Your task to perform on an android device: Open ESPN.com Image 0: 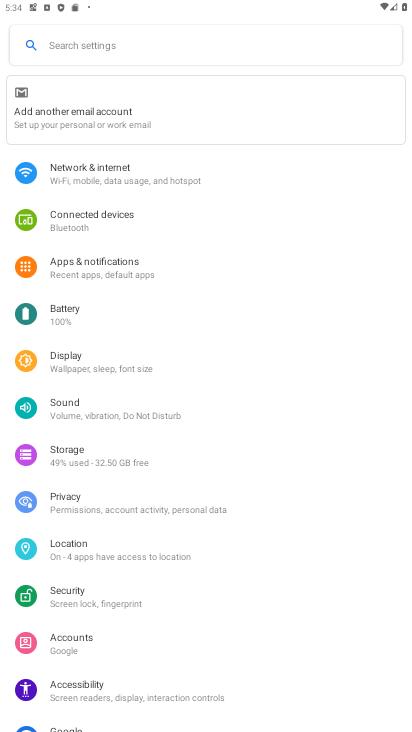
Step 0: press home button
Your task to perform on an android device: Open ESPN.com Image 1: 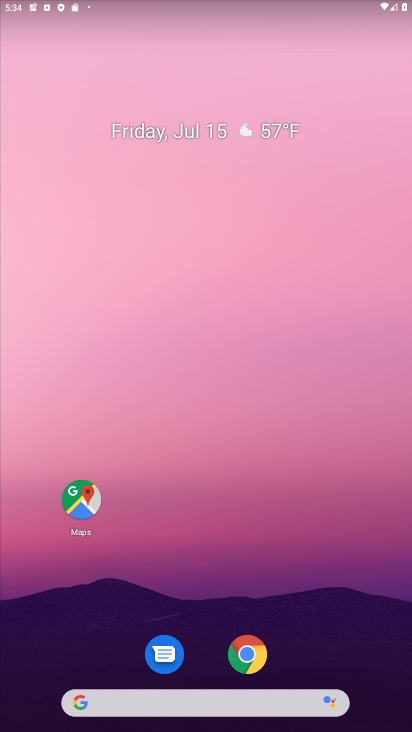
Step 1: click (250, 657)
Your task to perform on an android device: Open ESPN.com Image 2: 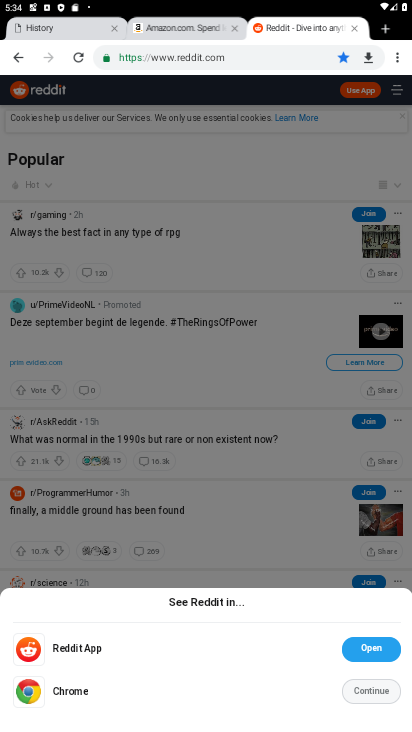
Step 2: click (386, 26)
Your task to perform on an android device: Open ESPN.com Image 3: 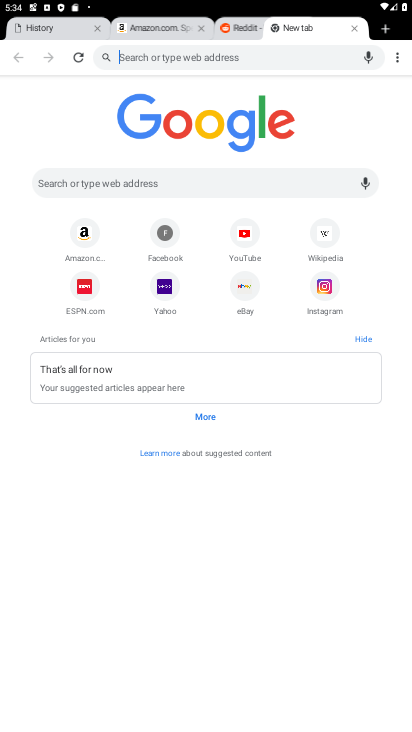
Step 3: type "espn"
Your task to perform on an android device: Open ESPN.com Image 4: 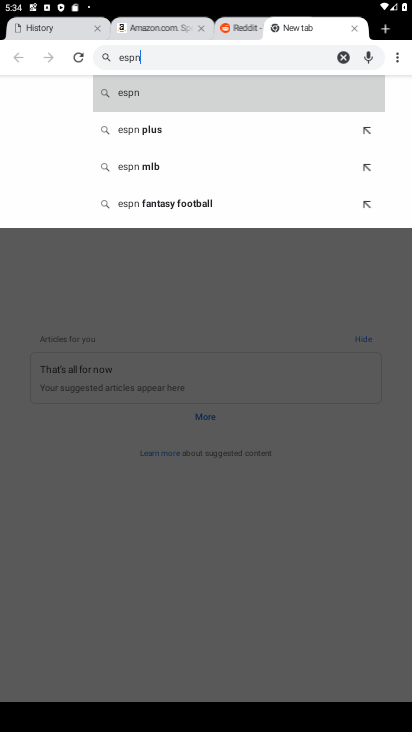
Step 4: click (219, 87)
Your task to perform on an android device: Open ESPN.com Image 5: 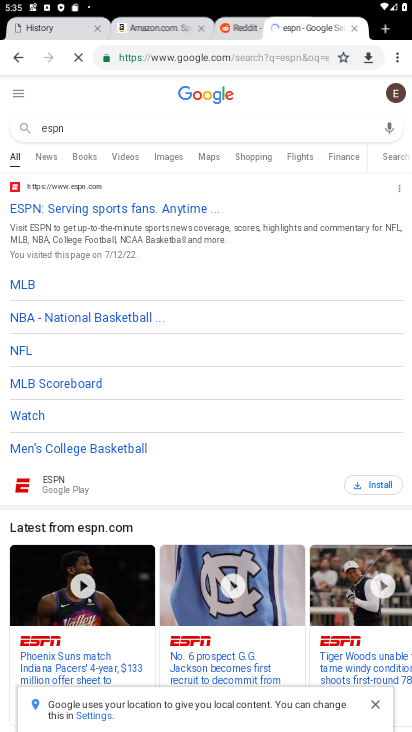
Step 5: click (185, 206)
Your task to perform on an android device: Open ESPN.com Image 6: 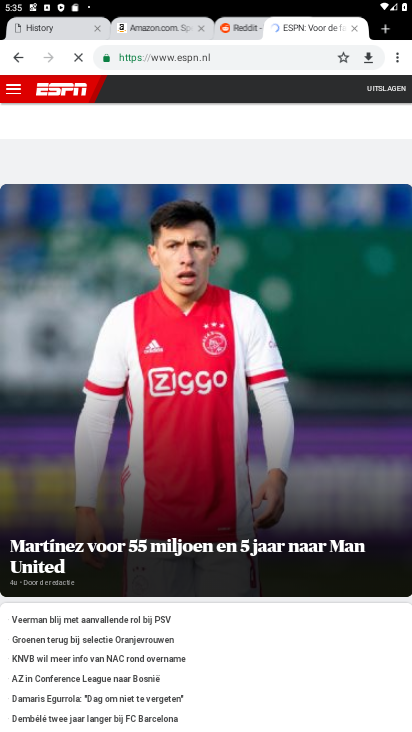
Step 6: task complete